Your task to perform on an android device: turn off data saver in the chrome app Image 0: 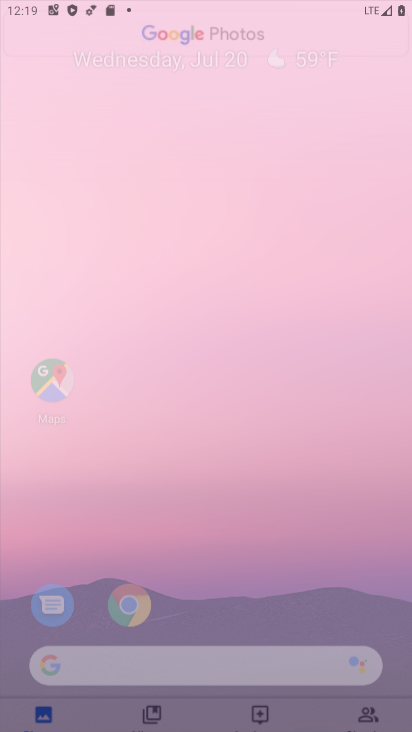
Step 0: drag from (239, 553) to (234, 221)
Your task to perform on an android device: turn off data saver in the chrome app Image 1: 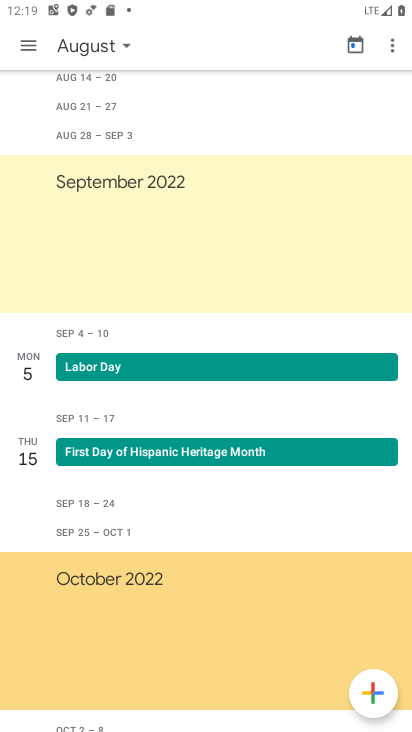
Step 1: press home button
Your task to perform on an android device: turn off data saver in the chrome app Image 2: 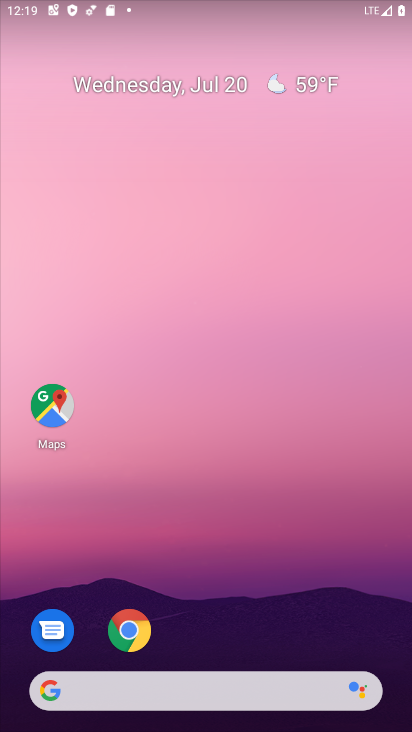
Step 2: click (146, 633)
Your task to perform on an android device: turn off data saver in the chrome app Image 3: 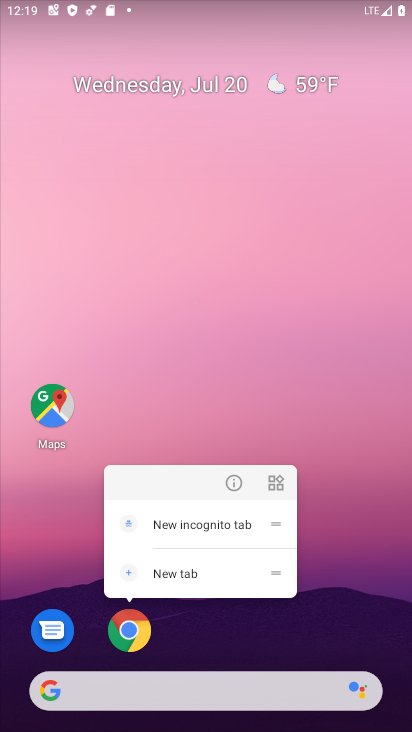
Step 3: click (145, 639)
Your task to perform on an android device: turn off data saver in the chrome app Image 4: 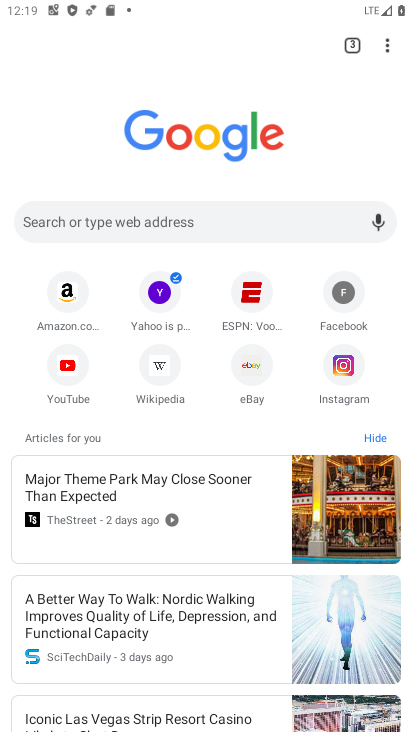
Step 4: click (392, 47)
Your task to perform on an android device: turn off data saver in the chrome app Image 5: 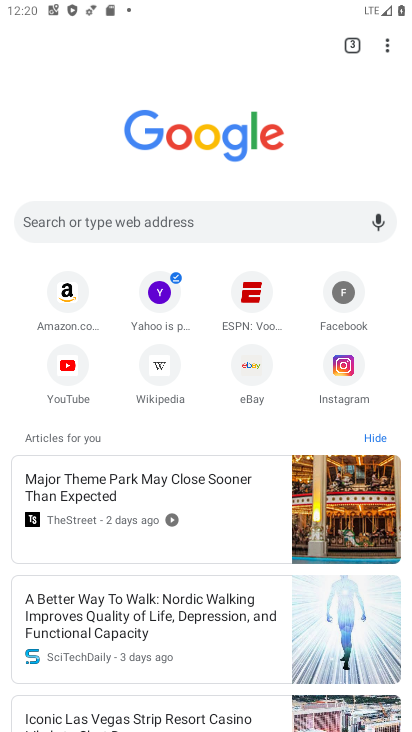
Step 5: click (392, 47)
Your task to perform on an android device: turn off data saver in the chrome app Image 6: 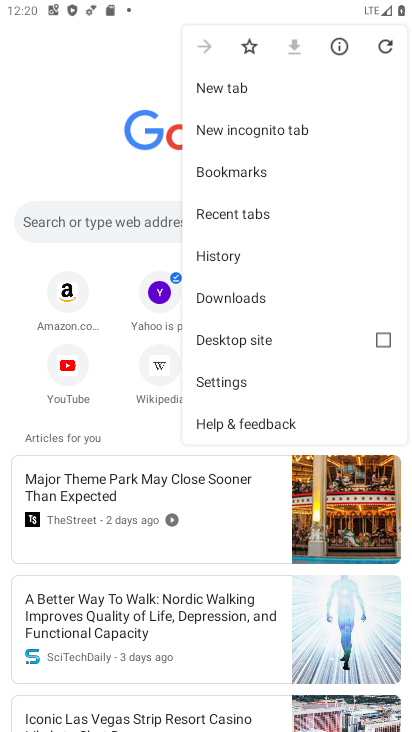
Step 6: click (249, 390)
Your task to perform on an android device: turn off data saver in the chrome app Image 7: 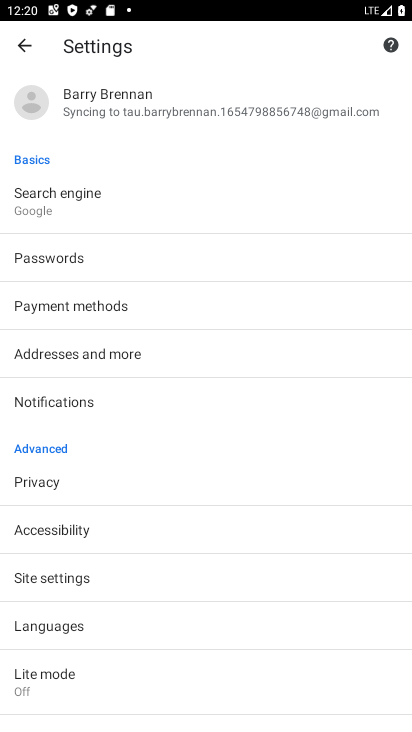
Step 7: click (103, 682)
Your task to perform on an android device: turn off data saver in the chrome app Image 8: 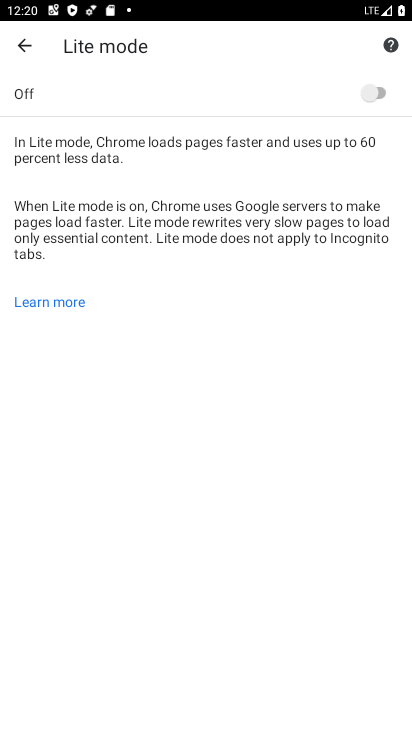
Step 8: task complete